Your task to perform on an android device: Show me popular videos on Youtube Image 0: 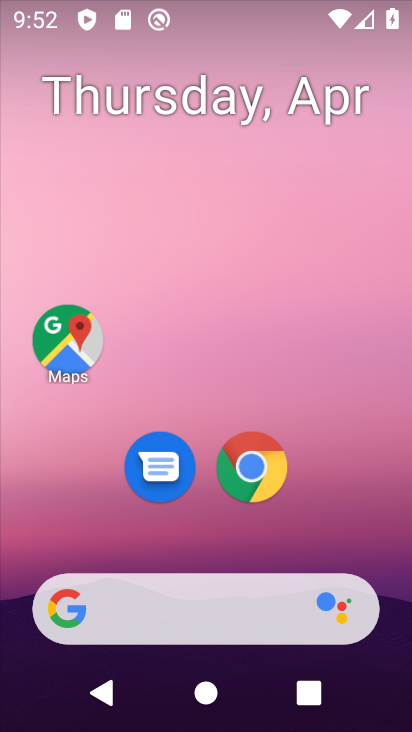
Step 0: drag from (361, 547) to (313, 173)
Your task to perform on an android device: Show me popular videos on Youtube Image 1: 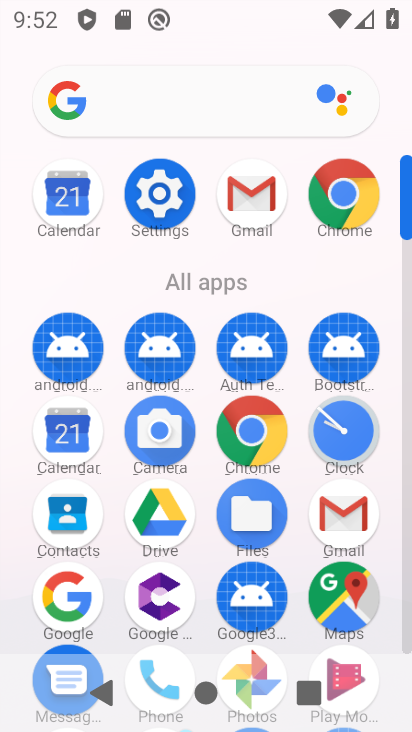
Step 1: click (408, 641)
Your task to perform on an android device: Show me popular videos on Youtube Image 2: 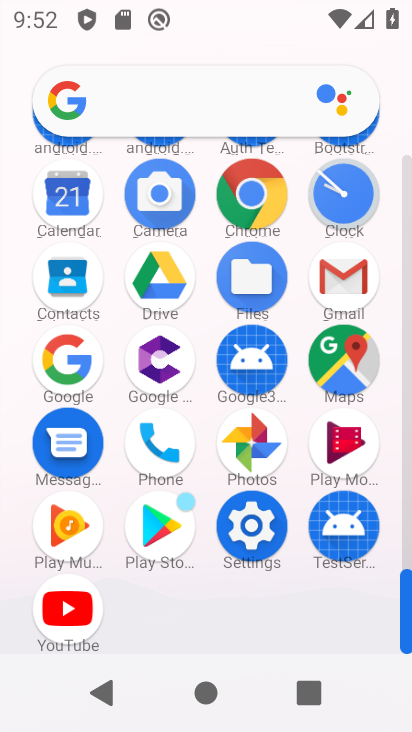
Step 2: click (74, 615)
Your task to perform on an android device: Show me popular videos on Youtube Image 3: 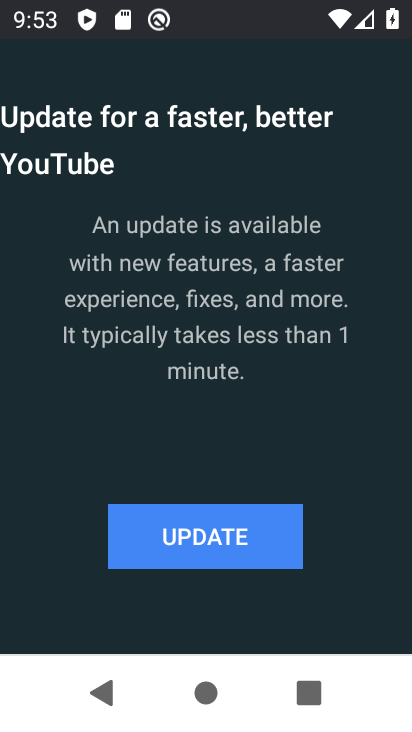
Step 3: click (201, 530)
Your task to perform on an android device: Show me popular videos on Youtube Image 4: 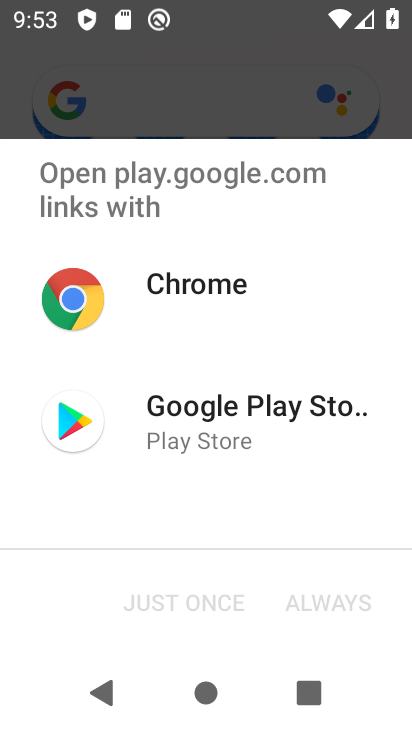
Step 4: click (212, 442)
Your task to perform on an android device: Show me popular videos on Youtube Image 5: 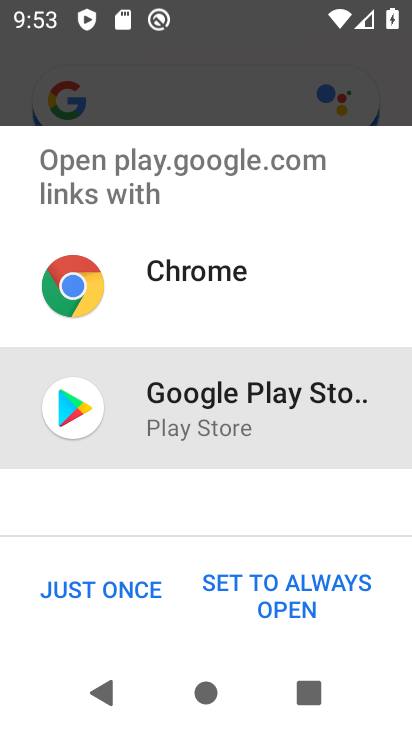
Step 5: click (133, 605)
Your task to perform on an android device: Show me popular videos on Youtube Image 6: 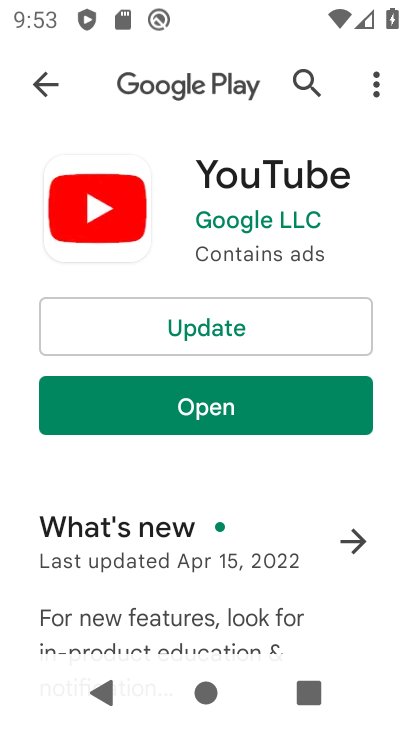
Step 6: click (224, 328)
Your task to perform on an android device: Show me popular videos on Youtube Image 7: 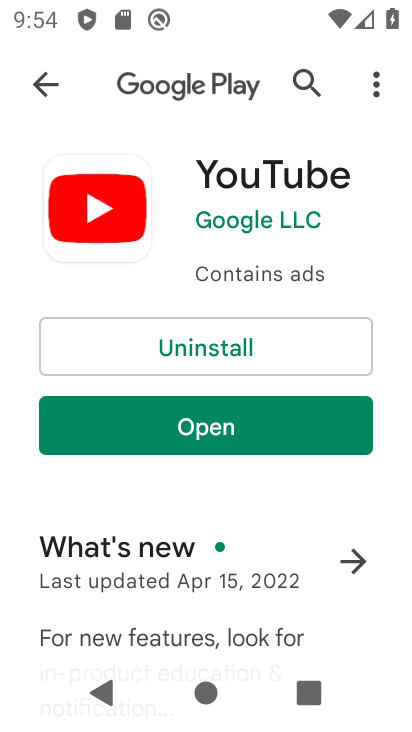
Step 7: click (328, 420)
Your task to perform on an android device: Show me popular videos on Youtube Image 8: 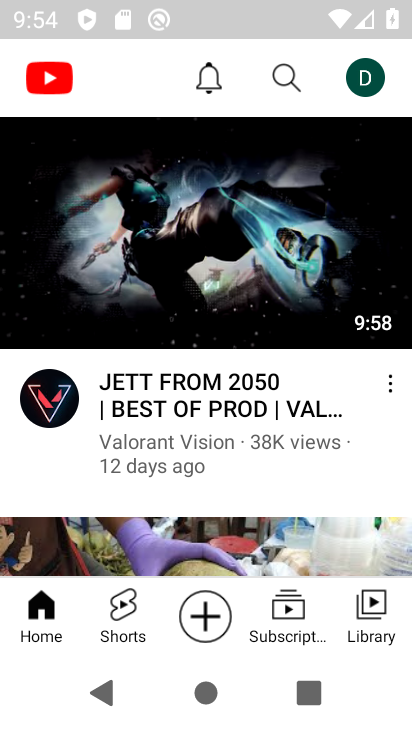
Step 8: drag from (325, 496) to (298, 269)
Your task to perform on an android device: Show me popular videos on Youtube Image 9: 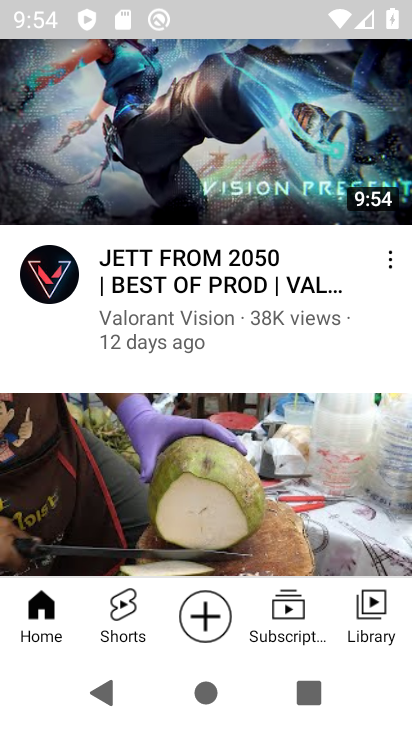
Step 9: drag from (314, 522) to (267, 185)
Your task to perform on an android device: Show me popular videos on Youtube Image 10: 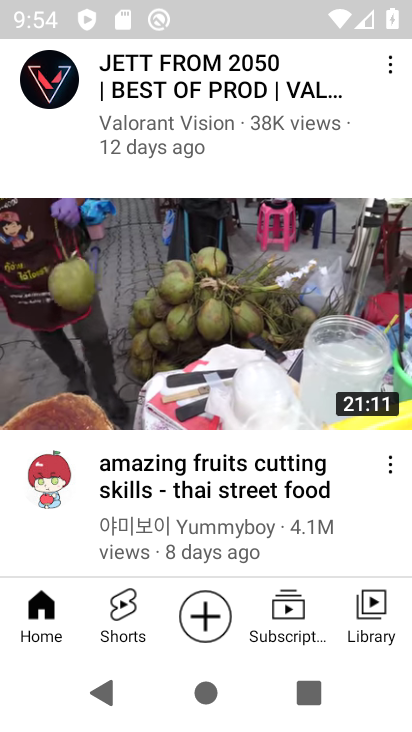
Step 10: click (301, 605)
Your task to perform on an android device: Show me popular videos on Youtube Image 11: 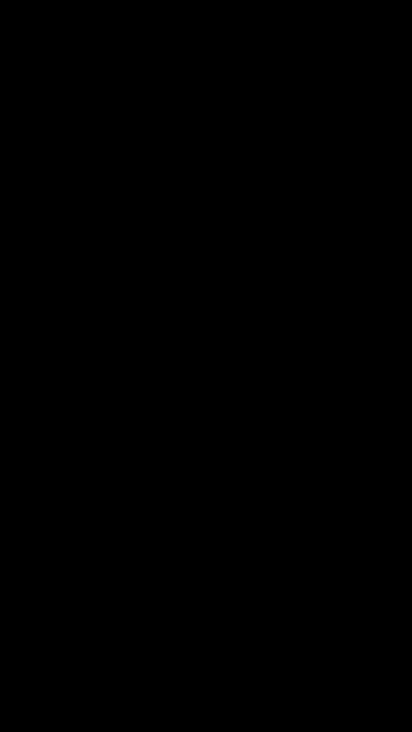
Step 11: task complete